Your task to perform on an android device: Open maps Image 0: 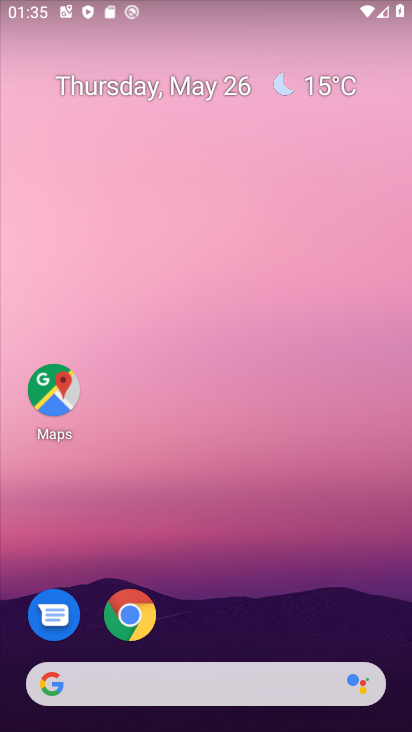
Step 0: click (58, 393)
Your task to perform on an android device: Open maps Image 1: 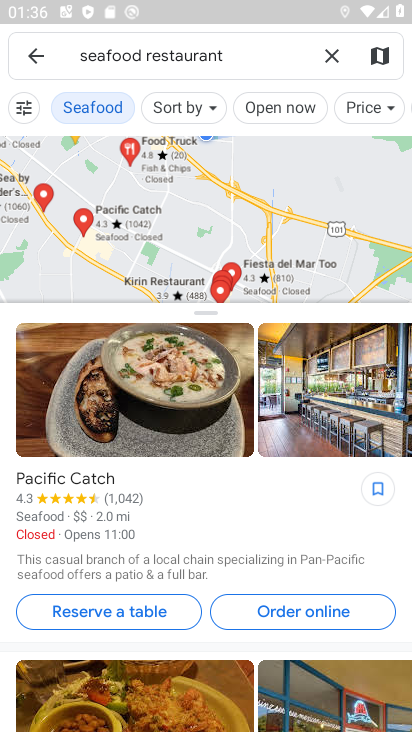
Step 1: task complete